Your task to perform on an android device: Search for pizza restaurants on Maps Image 0: 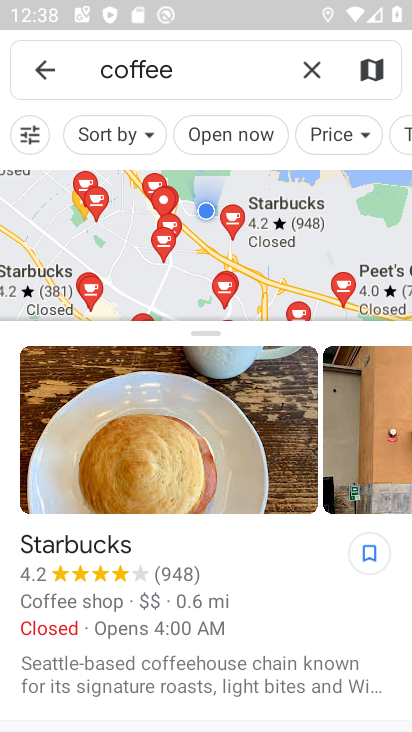
Step 0: click (311, 73)
Your task to perform on an android device: Search for pizza restaurants on Maps Image 1: 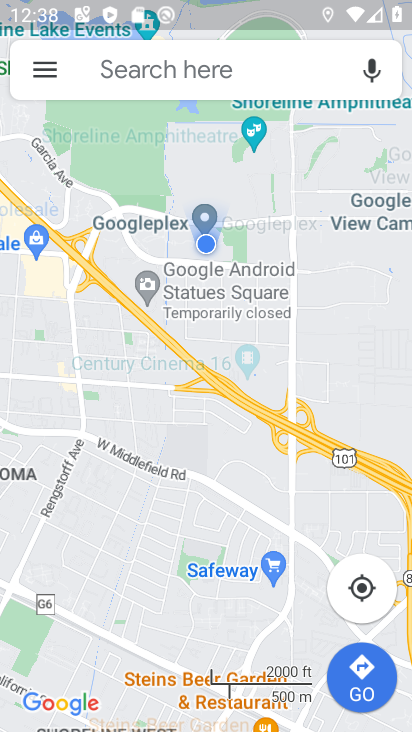
Step 1: click (201, 73)
Your task to perform on an android device: Search for pizza restaurants on Maps Image 2: 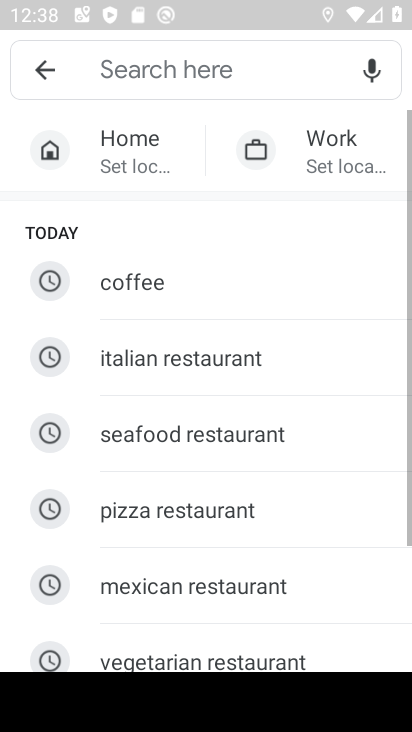
Step 2: click (146, 507)
Your task to perform on an android device: Search for pizza restaurants on Maps Image 3: 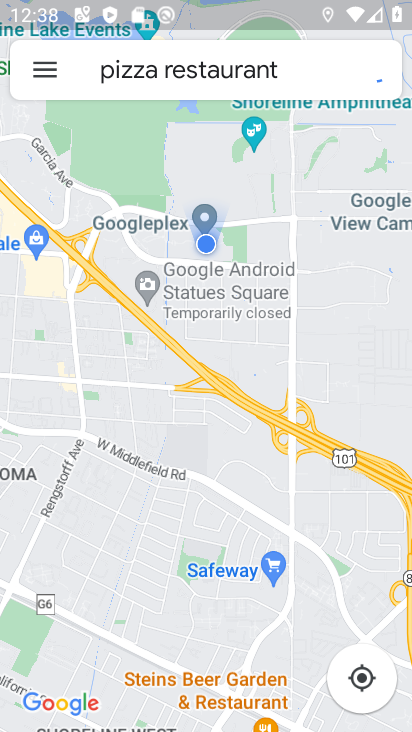
Step 3: task complete